Your task to perform on an android device: Open Youtube and go to "Your channel" Image 0: 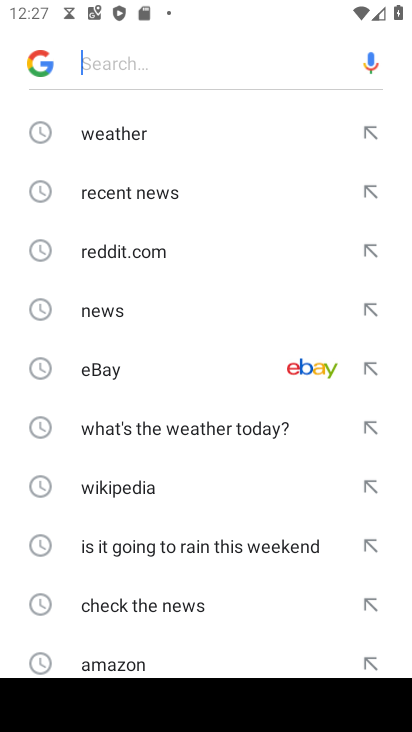
Step 0: press home button
Your task to perform on an android device: Open Youtube and go to "Your channel" Image 1: 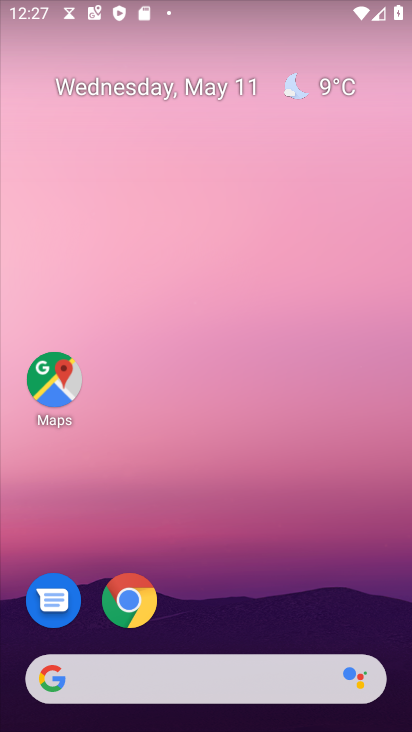
Step 1: drag from (271, 612) to (271, 48)
Your task to perform on an android device: Open Youtube and go to "Your channel" Image 2: 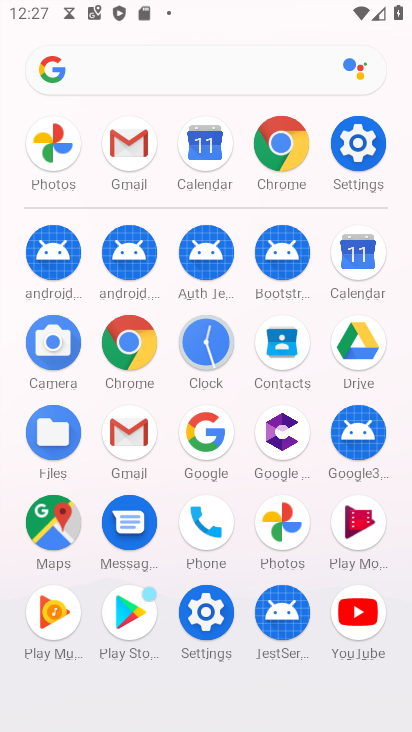
Step 2: click (364, 616)
Your task to perform on an android device: Open Youtube and go to "Your channel" Image 3: 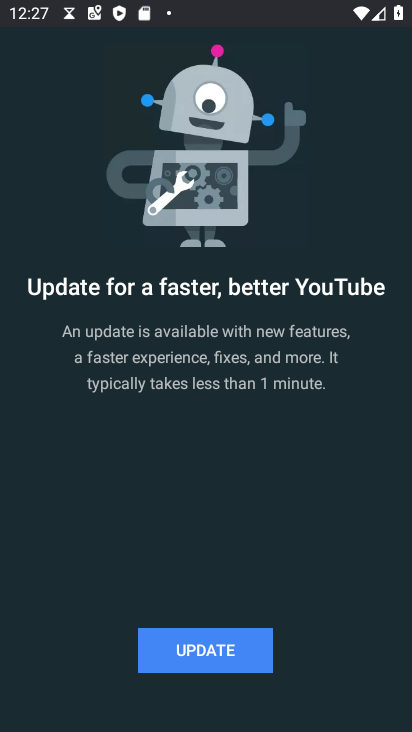
Step 3: click (222, 657)
Your task to perform on an android device: Open Youtube and go to "Your channel" Image 4: 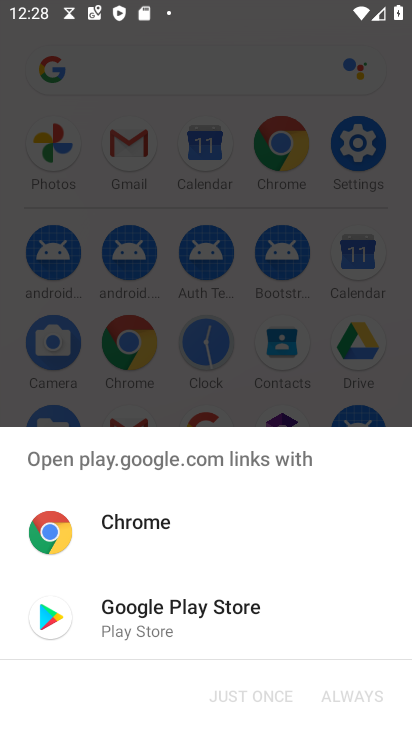
Step 4: click (221, 598)
Your task to perform on an android device: Open Youtube and go to "Your channel" Image 5: 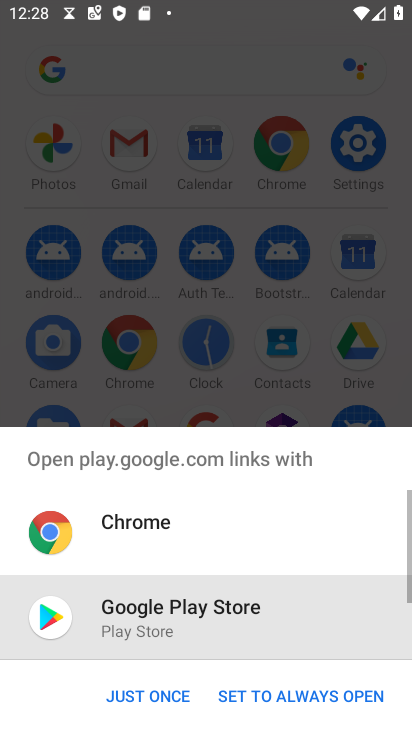
Step 5: click (160, 699)
Your task to perform on an android device: Open Youtube and go to "Your channel" Image 6: 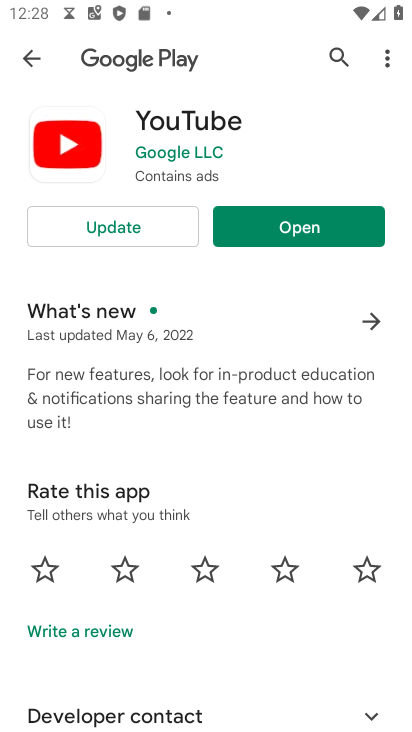
Step 6: click (289, 220)
Your task to perform on an android device: Open Youtube and go to "Your channel" Image 7: 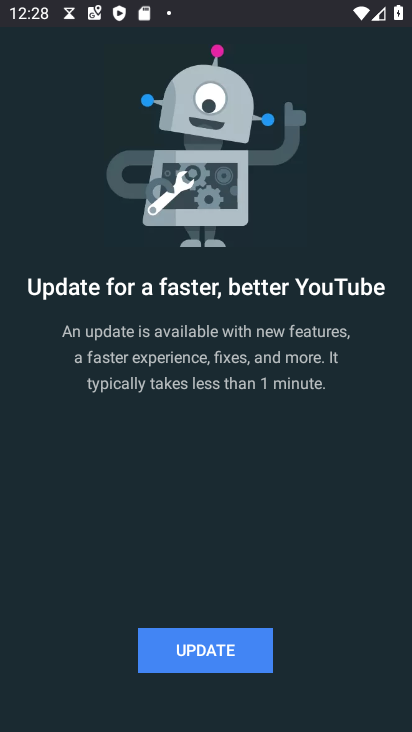
Step 7: click (194, 648)
Your task to perform on an android device: Open Youtube and go to "Your channel" Image 8: 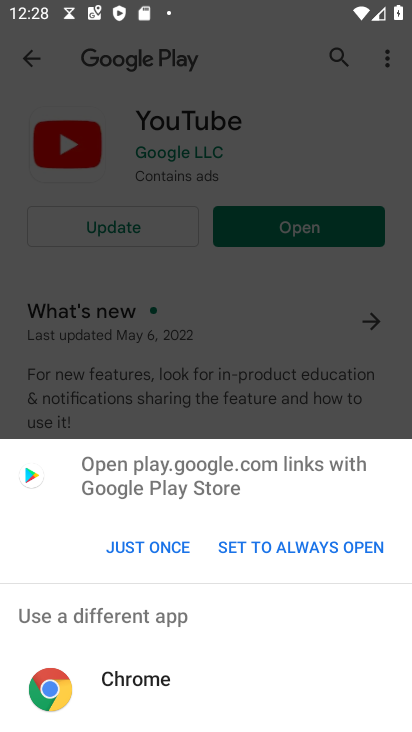
Step 8: click (154, 545)
Your task to perform on an android device: Open Youtube and go to "Your channel" Image 9: 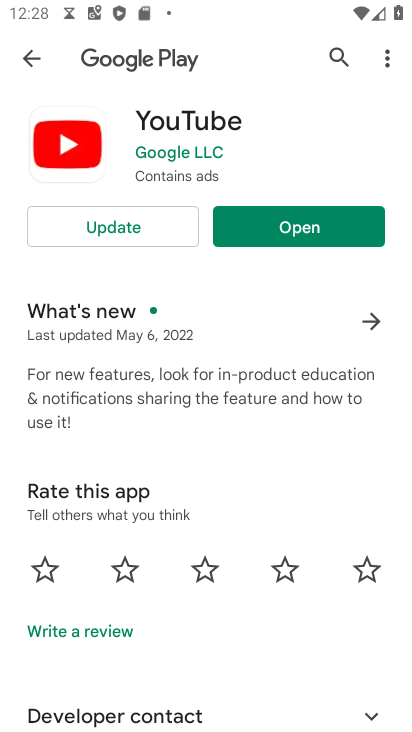
Step 9: click (111, 240)
Your task to perform on an android device: Open Youtube and go to "Your channel" Image 10: 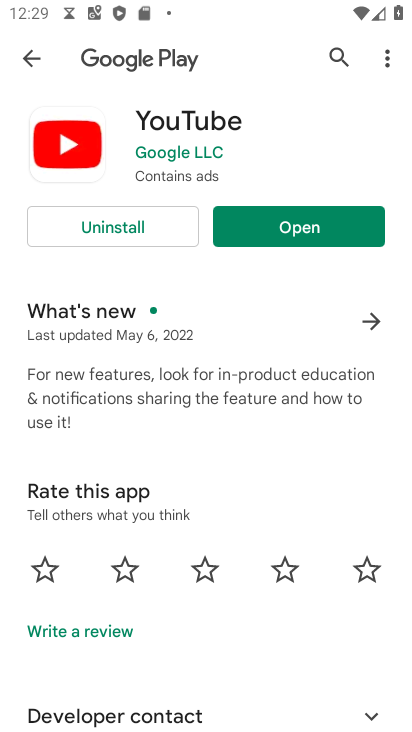
Step 10: click (313, 224)
Your task to perform on an android device: Open Youtube and go to "Your channel" Image 11: 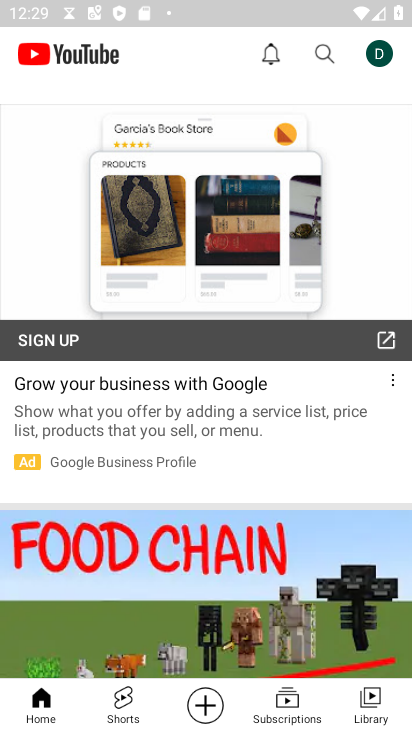
Step 11: click (385, 53)
Your task to perform on an android device: Open Youtube and go to "Your channel" Image 12: 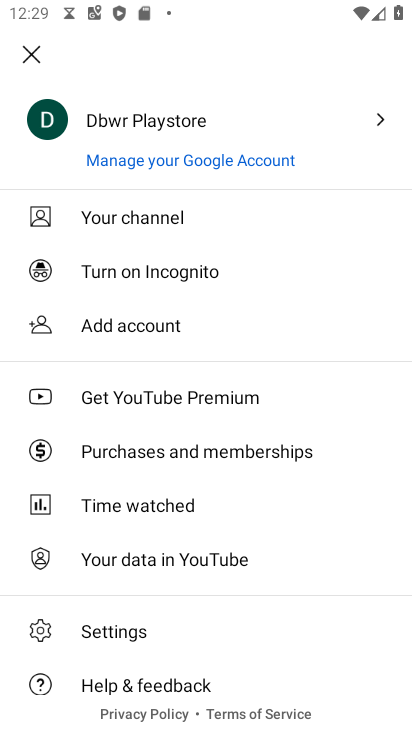
Step 12: click (107, 219)
Your task to perform on an android device: Open Youtube and go to "Your channel" Image 13: 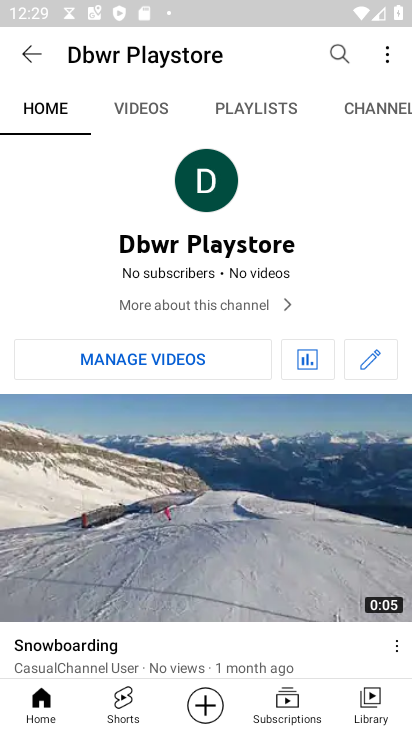
Step 13: task complete